Your task to perform on an android device: turn on notifications settings in the gmail app Image 0: 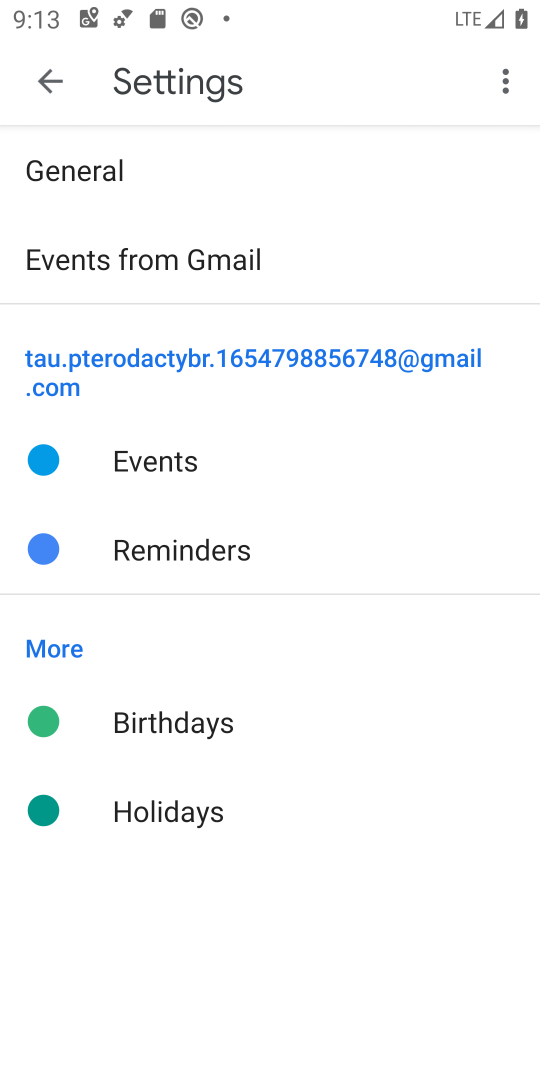
Step 0: press home button
Your task to perform on an android device: turn on notifications settings in the gmail app Image 1: 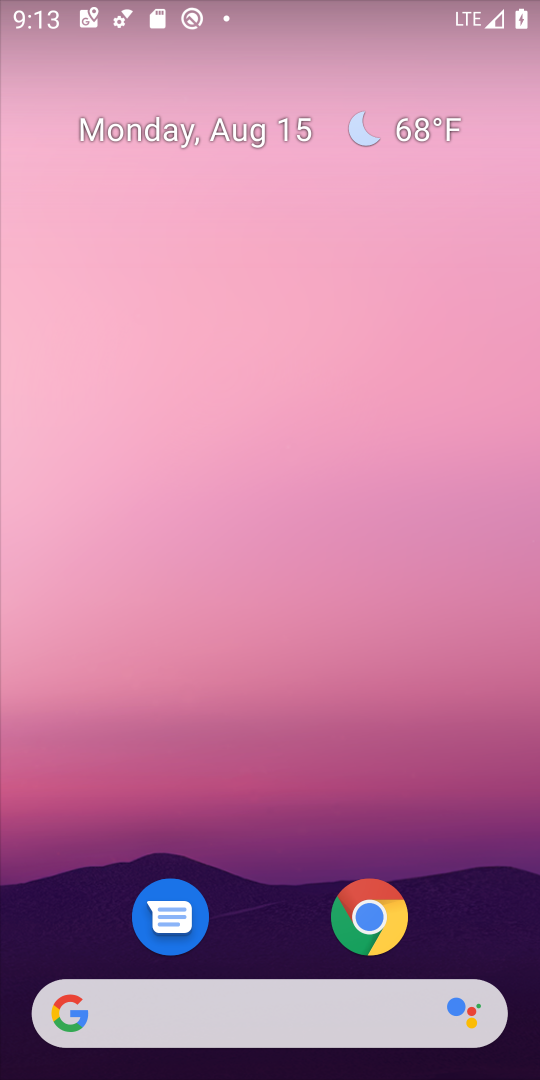
Step 1: drag from (262, 888) to (342, 9)
Your task to perform on an android device: turn on notifications settings in the gmail app Image 2: 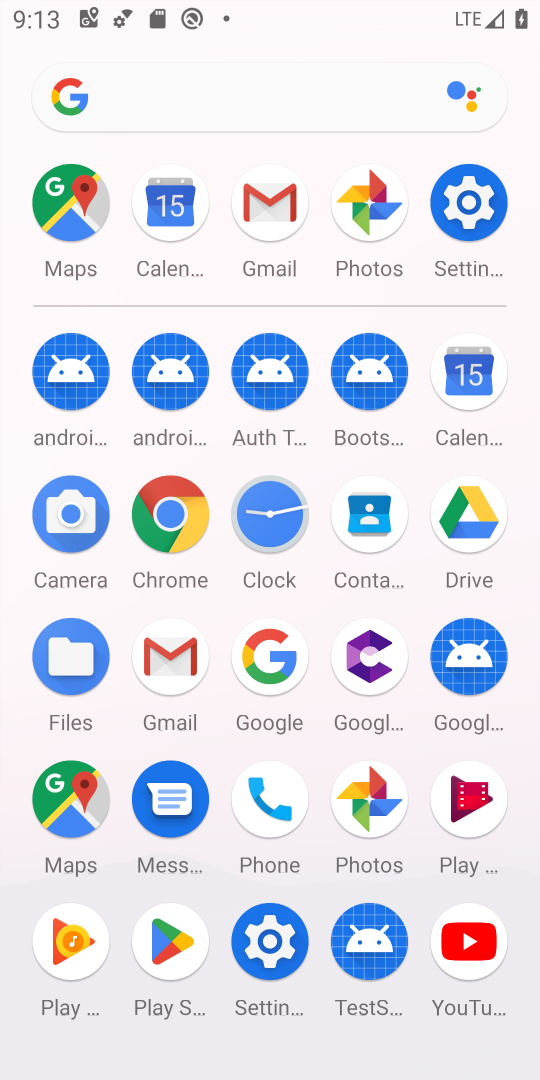
Step 2: click (279, 200)
Your task to perform on an android device: turn on notifications settings in the gmail app Image 3: 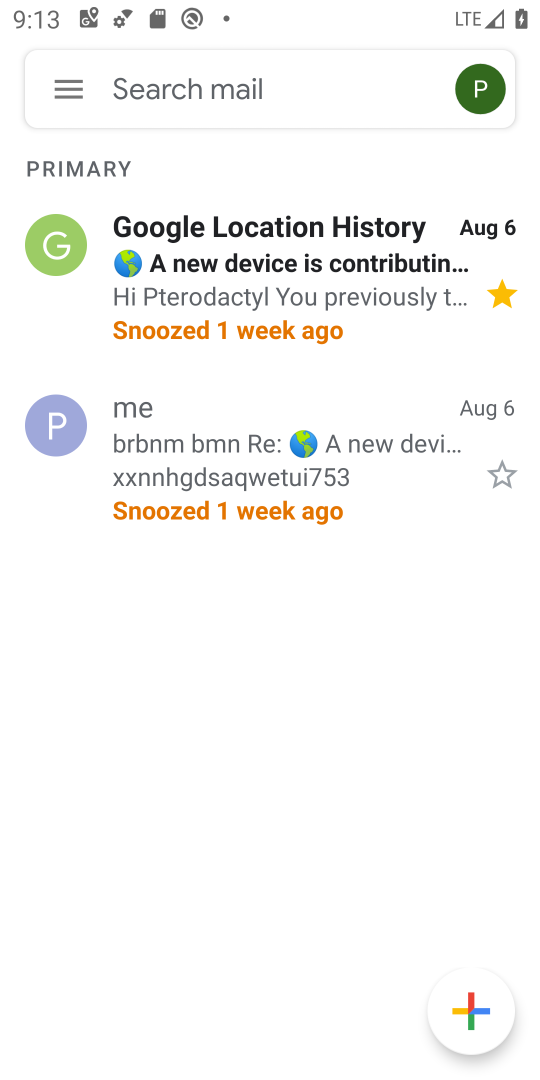
Step 3: click (70, 86)
Your task to perform on an android device: turn on notifications settings in the gmail app Image 4: 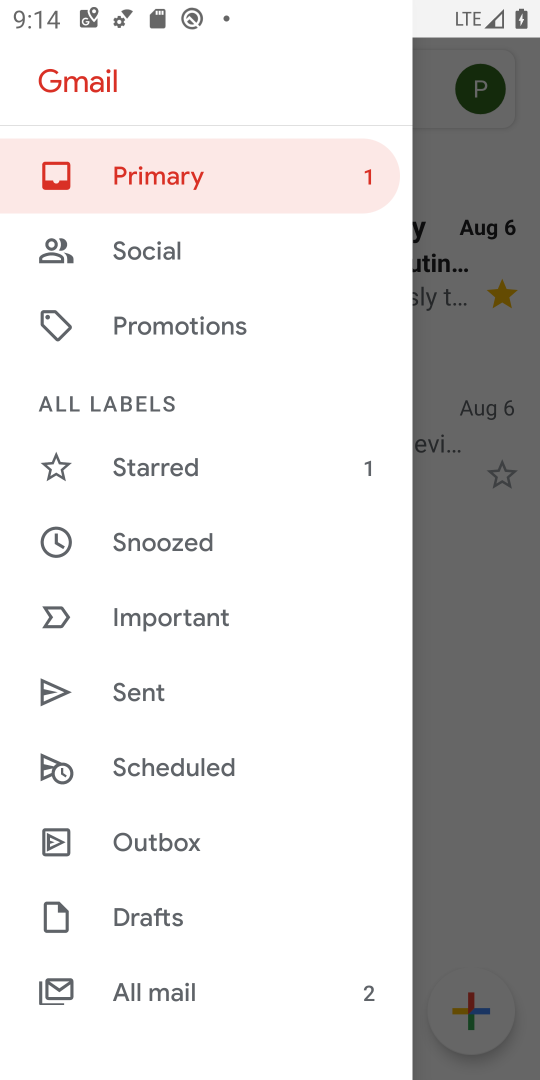
Step 4: drag from (204, 868) to (220, 33)
Your task to perform on an android device: turn on notifications settings in the gmail app Image 5: 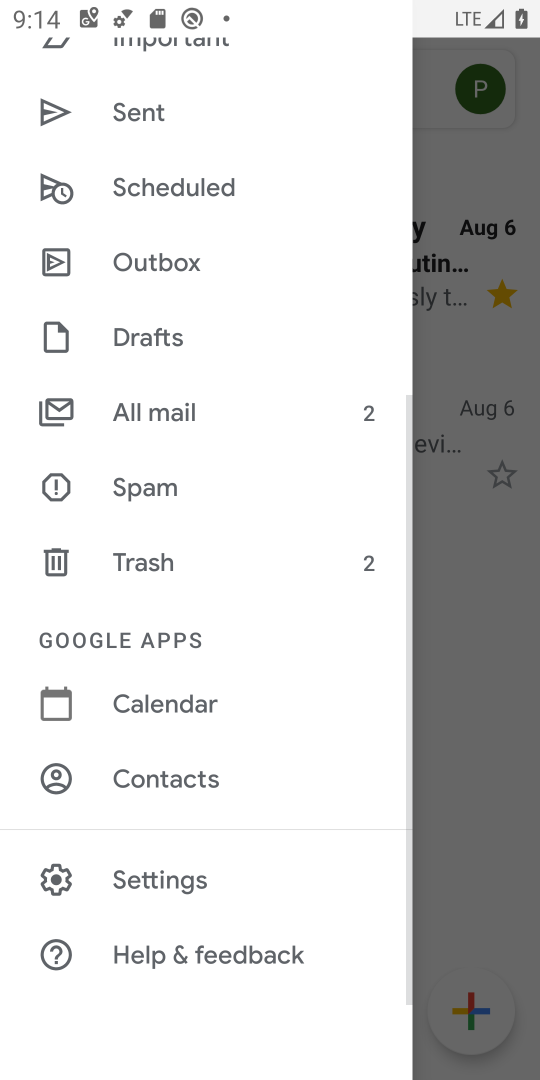
Step 5: click (172, 881)
Your task to perform on an android device: turn on notifications settings in the gmail app Image 6: 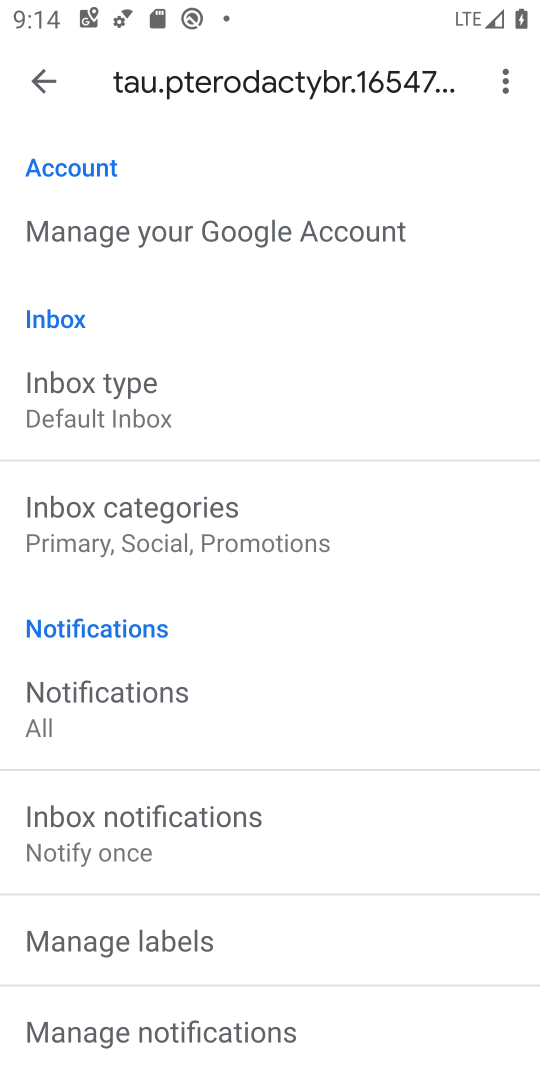
Step 6: drag from (300, 884) to (320, 486)
Your task to perform on an android device: turn on notifications settings in the gmail app Image 7: 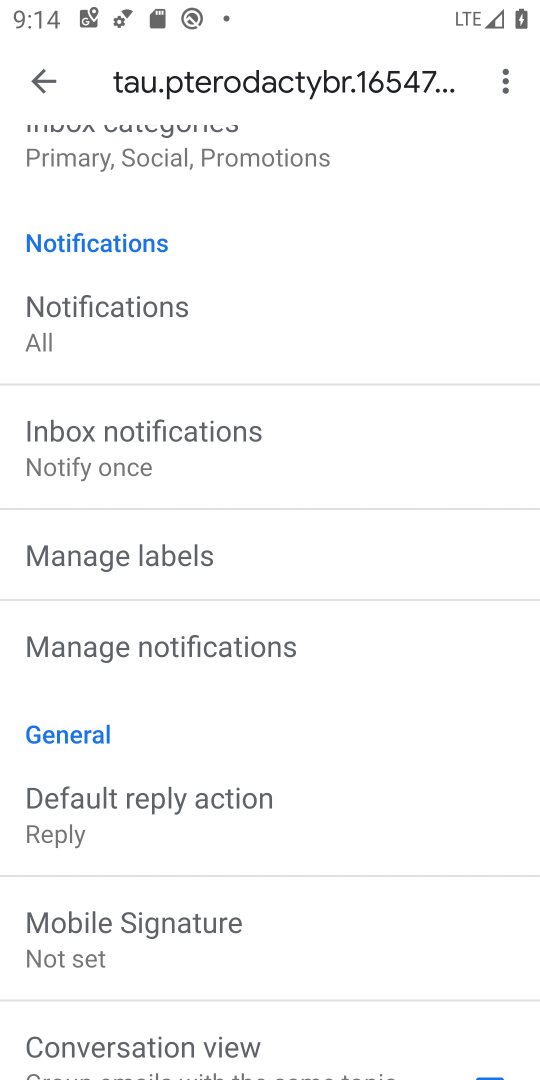
Step 7: click (296, 634)
Your task to perform on an android device: turn on notifications settings in the gmail app Image 8: 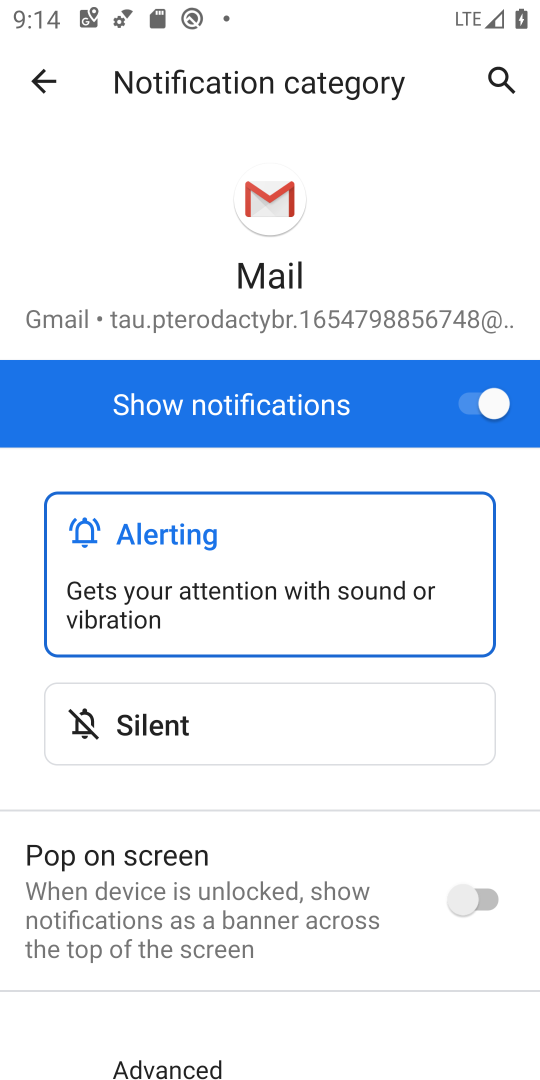
Step 8: task complete